Your task to perform on an android device: check out phone information Image 0: 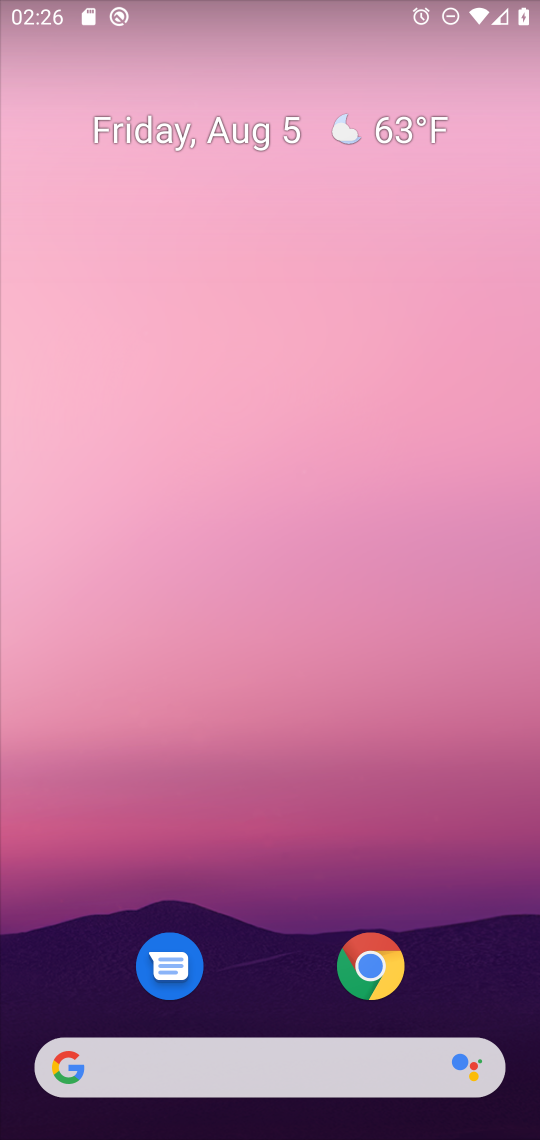
Step 0: drag from (285, 785) to (314, 40)
Your task to perform on an android device: check out phone information Image 1: 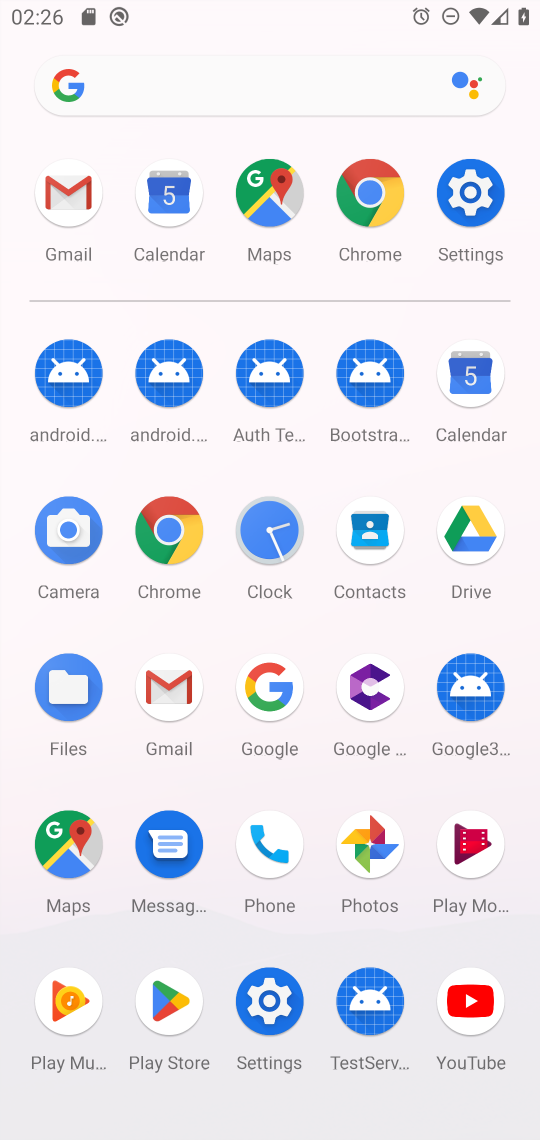
Step 1: click (270, 840)
Your task to perform on an android device: check out phone information Image 2: 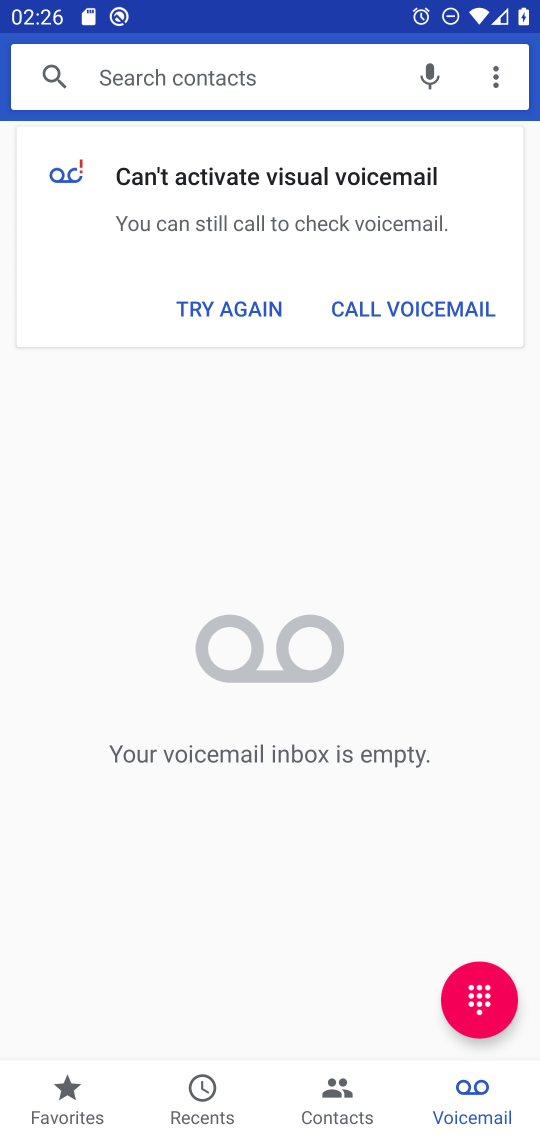
Step 2: click (490, 75)
Your task to perform on an android device: check out phone information Image 3: 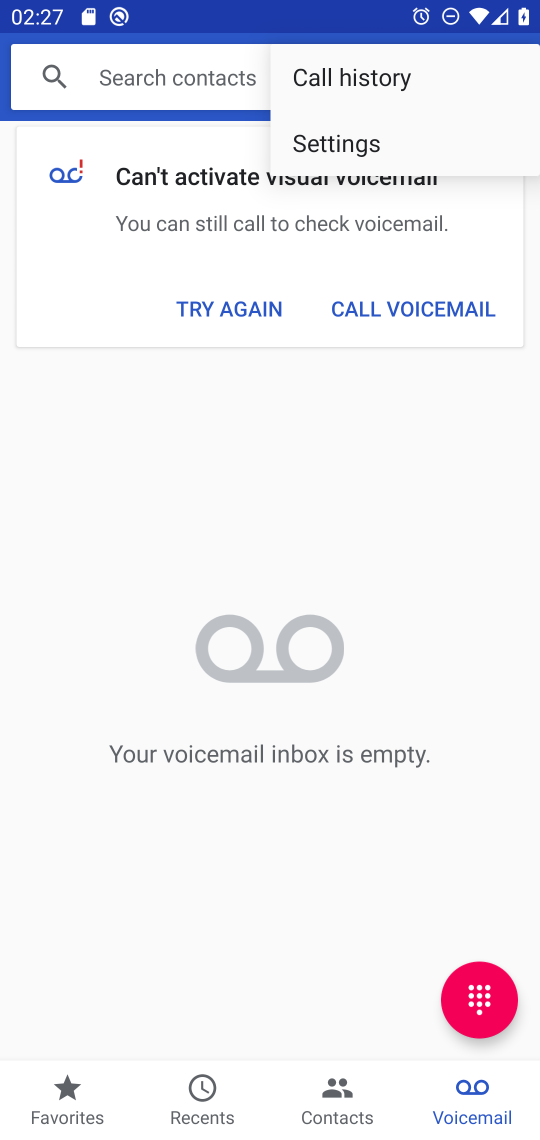
Step 3: click (368, 145)
Your task to perform on an android device: check out phone information Image 4: 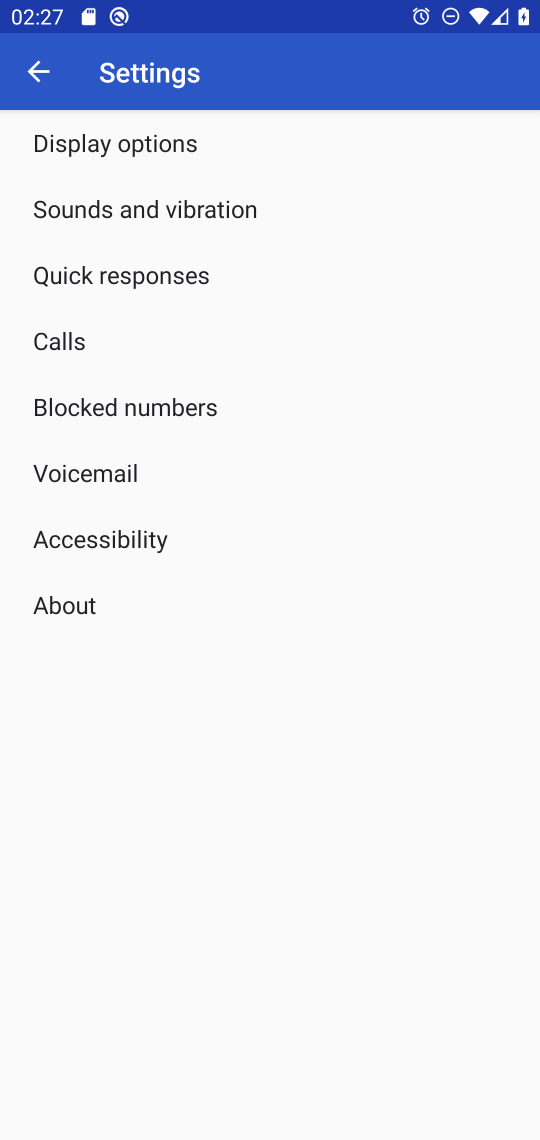
Step 4: click (93, 603)
Your task to perform on an android device: check out phone information Image 5: 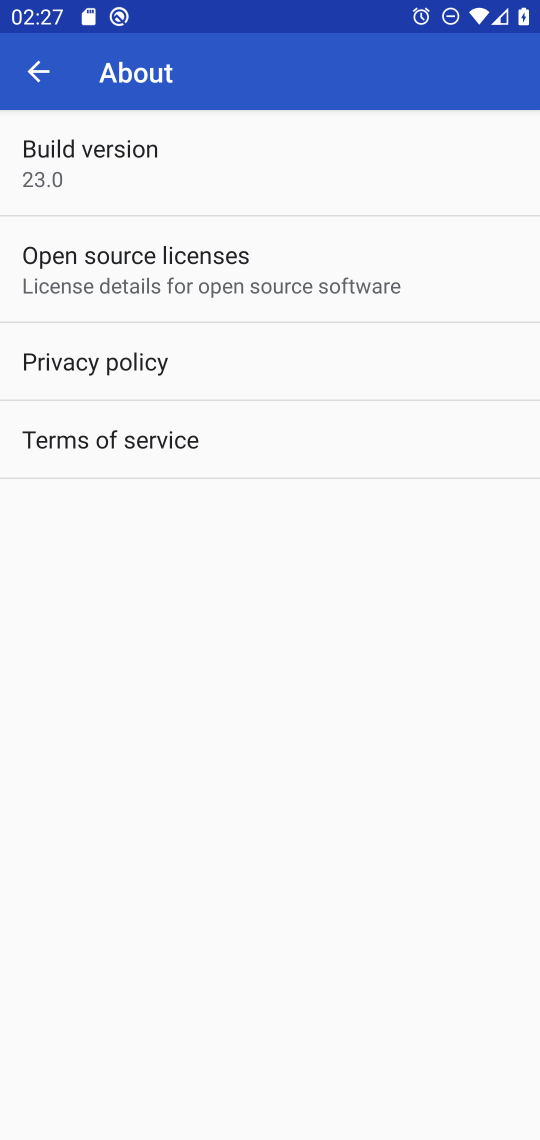
Step 5: task complete